Your task to perform on an android device: Go to eBay Image 0: 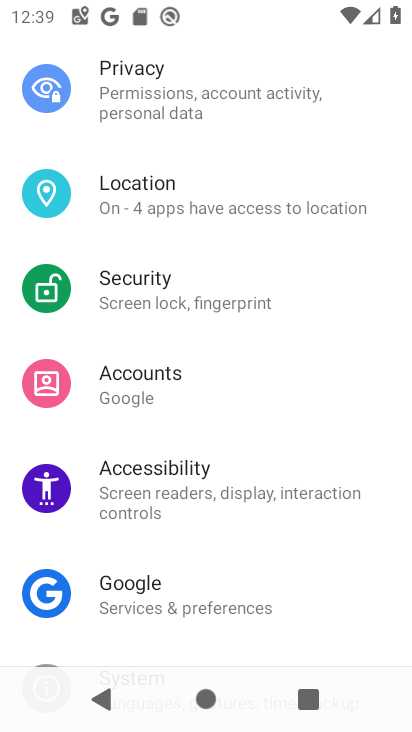
Step 0: press home button
Your task to perform on an android device: Go to eBay Image 1: 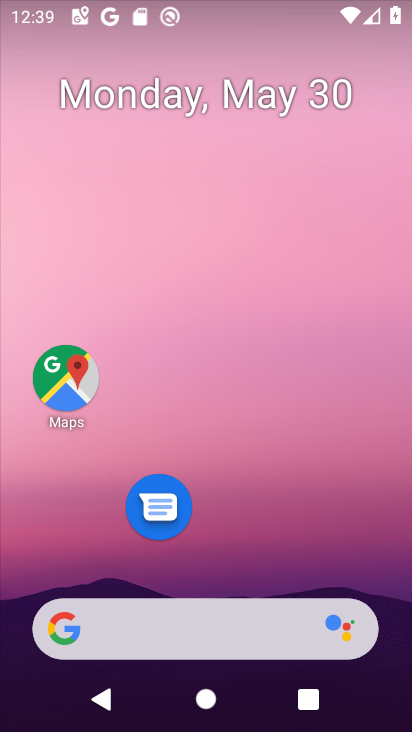
Step 1: drag from (283, 527) to (307, 41)
Your task to perform on an android device: Go to eBay Image 2: 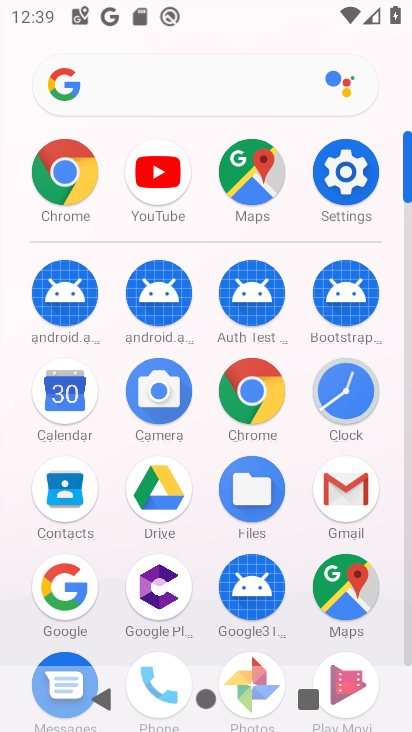
Step 2: click (257, 392)
Your task to perform on an android device: Go to eBay Image 3: 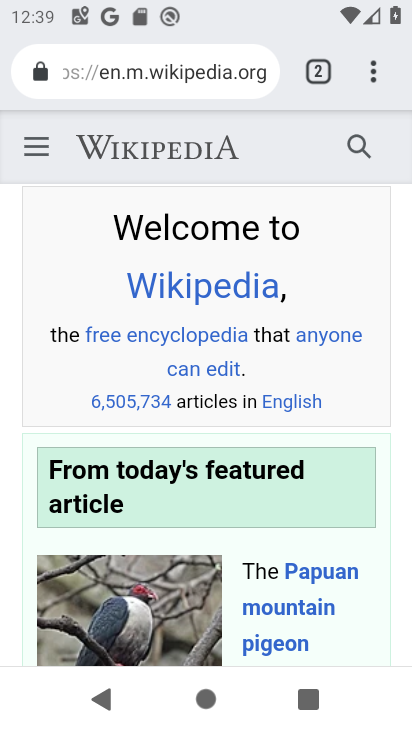
Step 3: click (191, 74)
Your task to perform on an android device: Go to eBay Image 4: 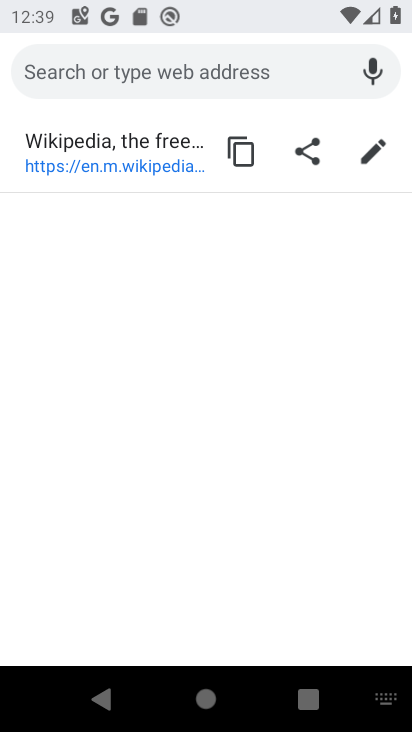
Step 4: type "eBay"
Your task to perform on an android device: Go to eBay Image 5: 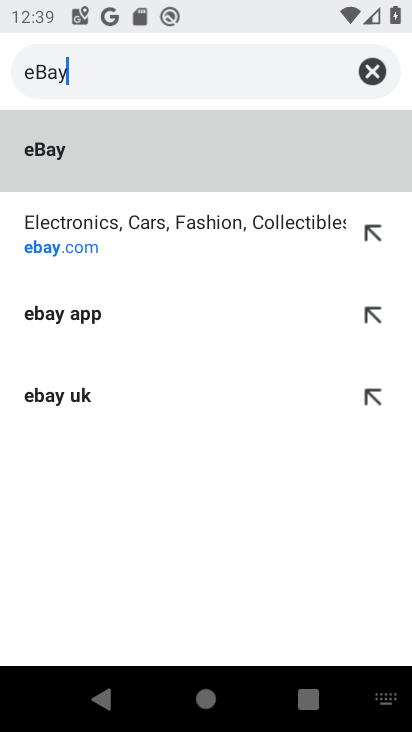
Step 5: click (72, 244)
Your task to perform on an android device: Go to eBay Image 6: 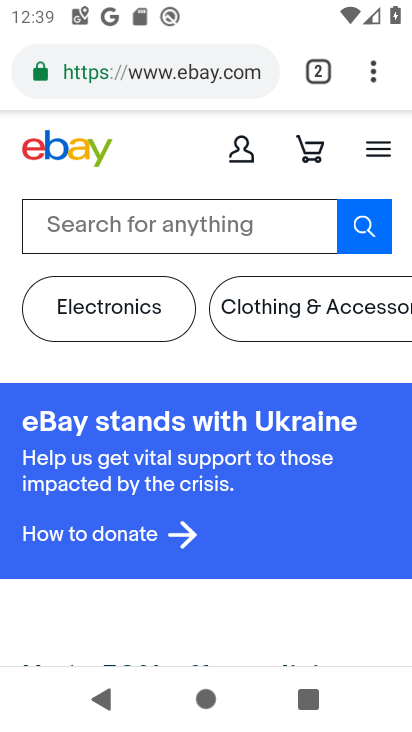
Step 6: task complete